Your task to perform on an android device: Is it going to rain tomorrow? Image 0: 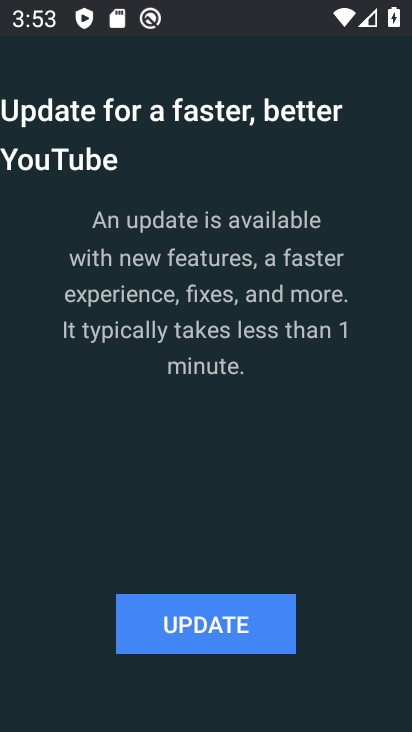
Step 0: press back button
Your task to perform on an android device: Is it going to rain tomorrow? Image 1: 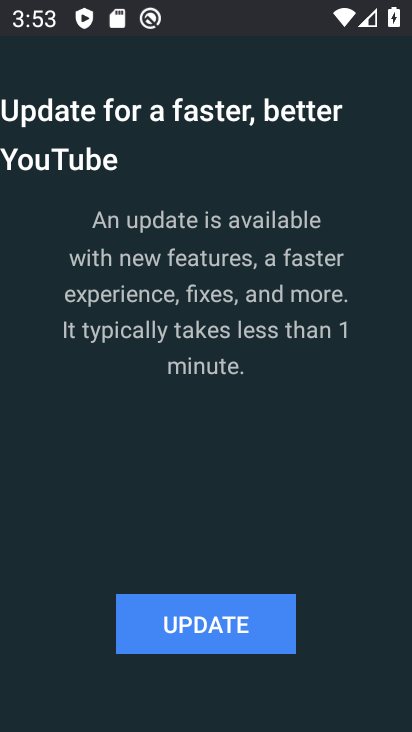
Step 1: press back button
Your task to perform on an android device: Is it going to rain tomorrow? Image 2: 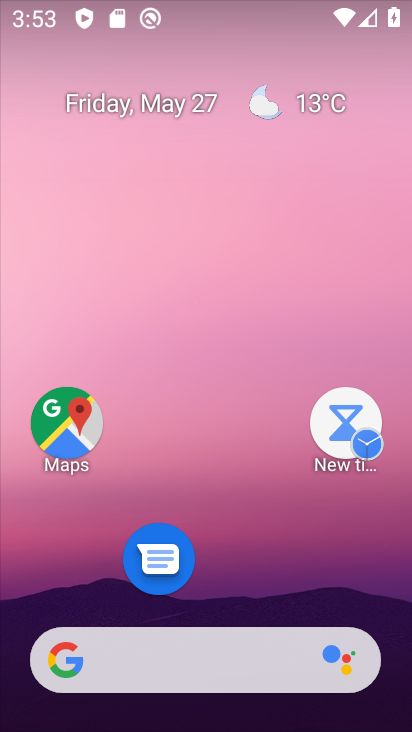
Step 2: drag from (268, 655) to (185, 82)
Your task to perform on an android device: Is it going to rain tomorrow? Image 3: 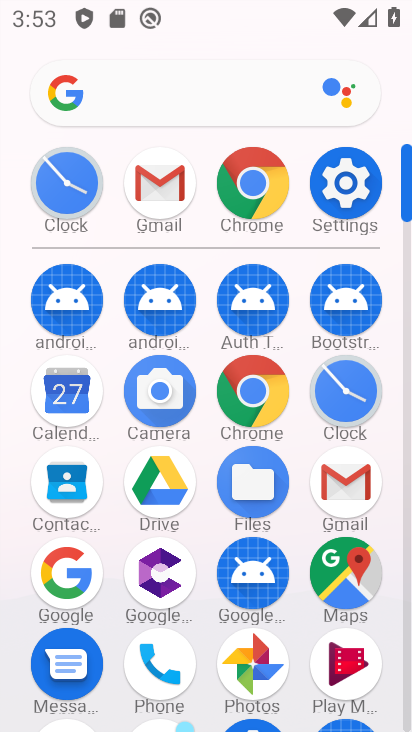
Step 3: drag from (215, 371) to (394, 230)
Your task to perform on an android device: Is it going to rain tomorrow? Image 4: 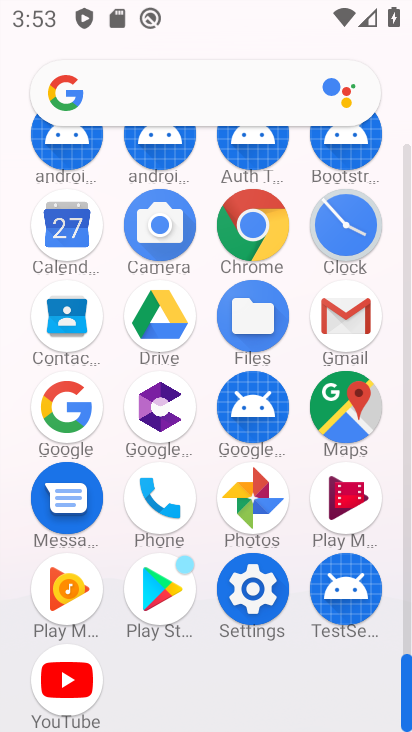
Step 4: press back button
Your task to perform on an android device: Is it going to rain tomorrow? Image 5: 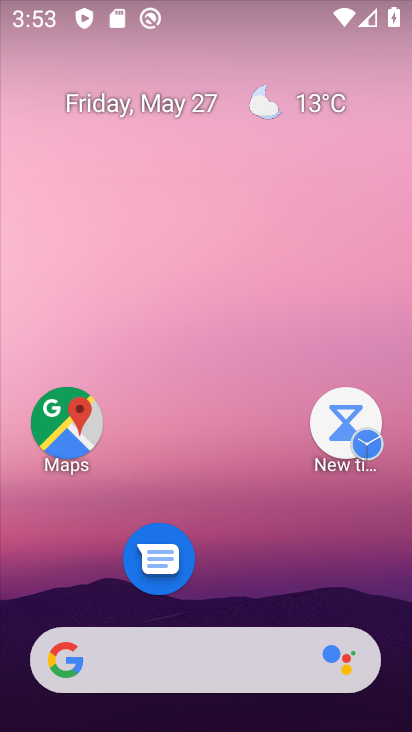
Step 5: drag from (3, 220) to (400, 426)
Your task to perform on an android device: Is it going to rain tomorrow? Image 6: 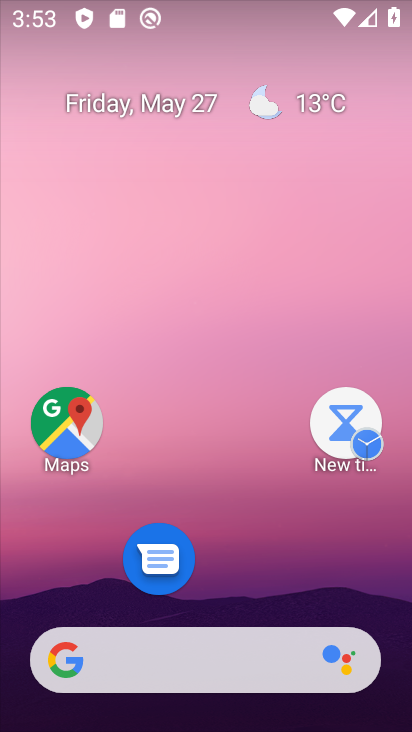
Step 6: drag from (220, 296) to (395, 422)
Your task to perform on an android device: Is it going to rain tomorrow? Image 7: 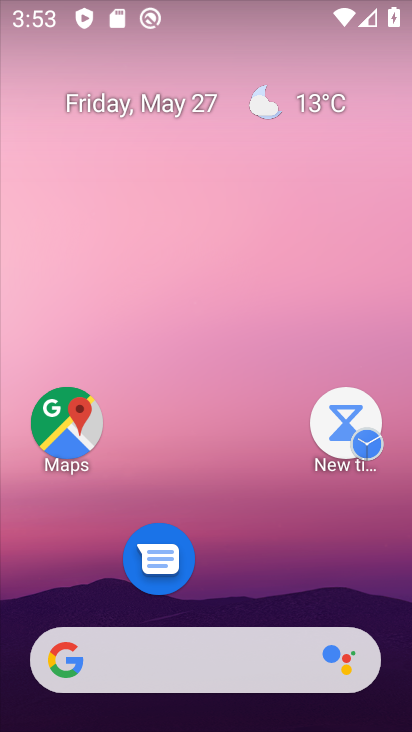
Step 7: drag from (5, 151) to (365, 564)
Your task to perform on an android device: Is it going to rain tomorrow? Image 8: 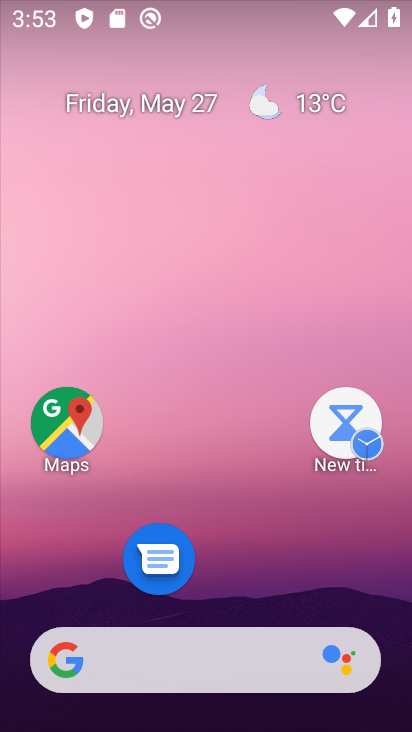
Step 8: drag from (265, 375) to (303, 425)
Your task to perform on an android device: Is it going to rain tomorrow? Image 9: 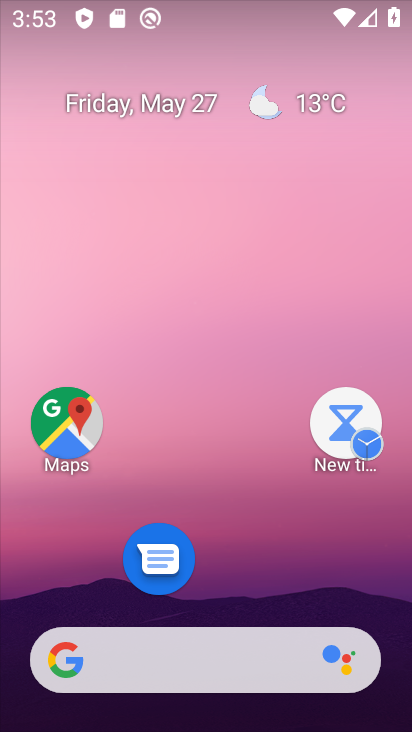
Step 9: drag from (3, 177) to (278, 551)
Your task to perform on an android device: Is it going to rain tomorrow? Image 10: 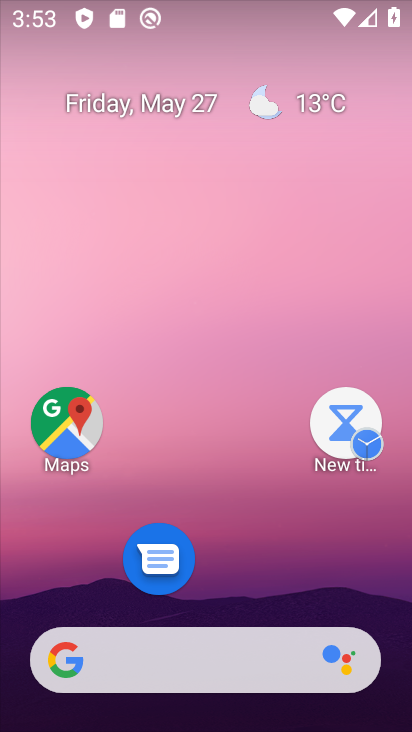
Step 10: drag from (0, 161) to (390, 472)
Your task to perform on an android device: Is it going to rain tomorrow? Image 11: 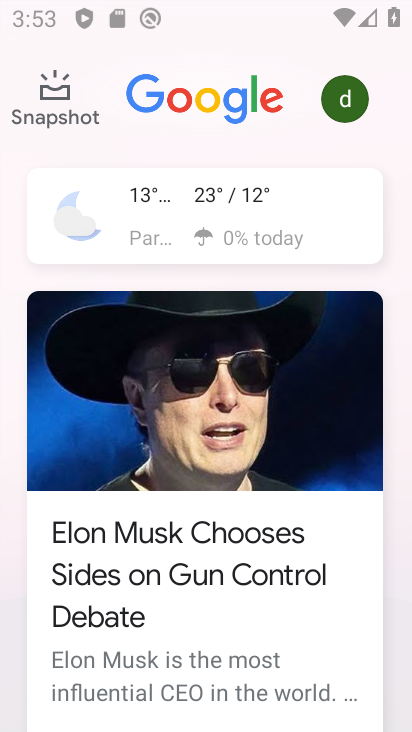
Step 11: drag from (286, 473) to (237, 512)
Your task to perform on an android device: Is it going to rain tomorrow? Image 12: 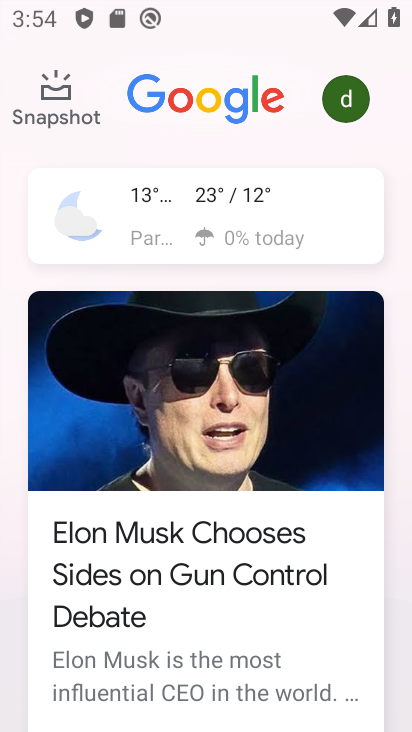
Step 12: click (194, 221)
Your task to perform on an android device: Is it going to rain tomorrow? Image 13: 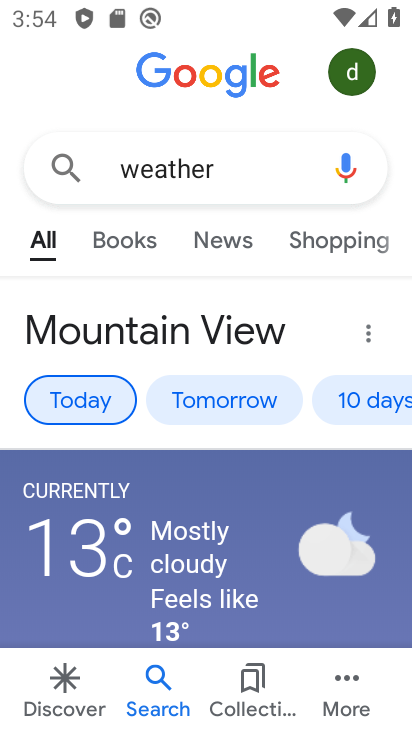
Step 13: click (208, 396)
Your task to perform on an android device: Is it going to rain tomorrow? Image 14: 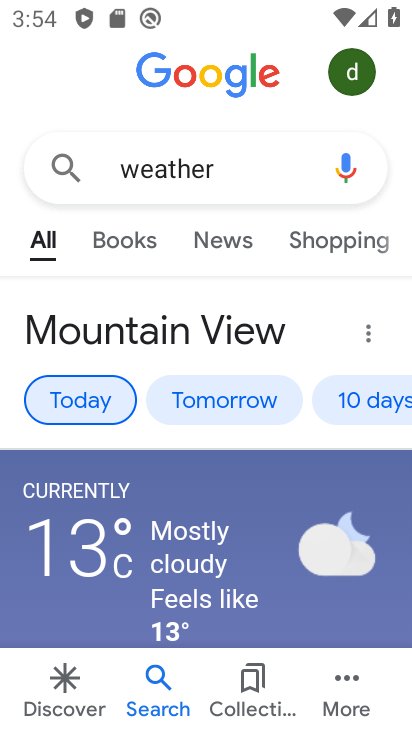
Step 14: click (211, 395)
Your task to perform on an android device: Is it going to rain tomorrow? Image 15: 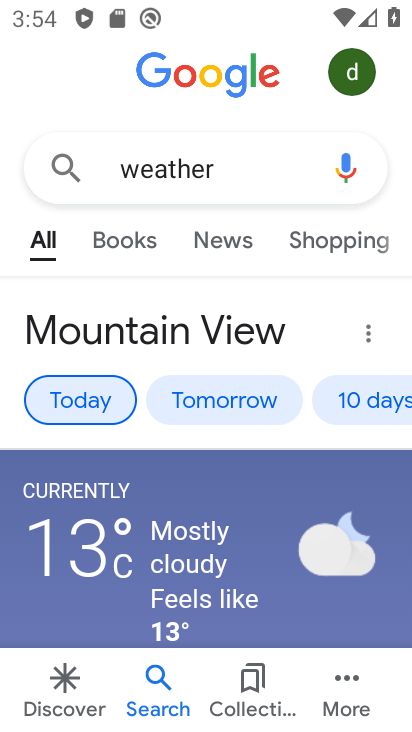
Step 15: click (215, 398)
Your task to perform on an android device: Is it going to rain tomorrow? Image 16: 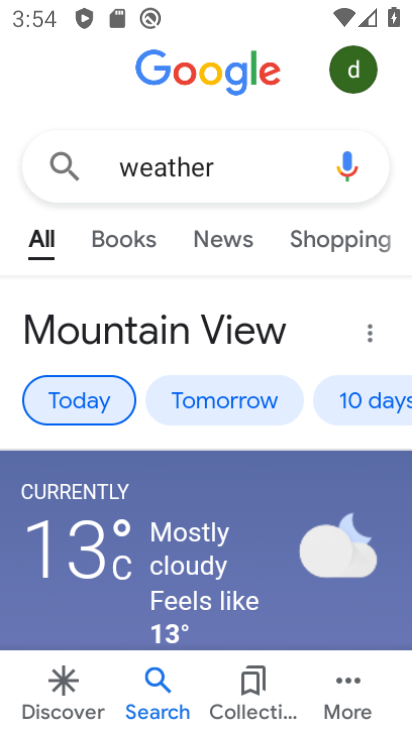
Step 16: click (215, 398)
Your task to perform on an android device: Is it going to rain tomorrow? Image 17: 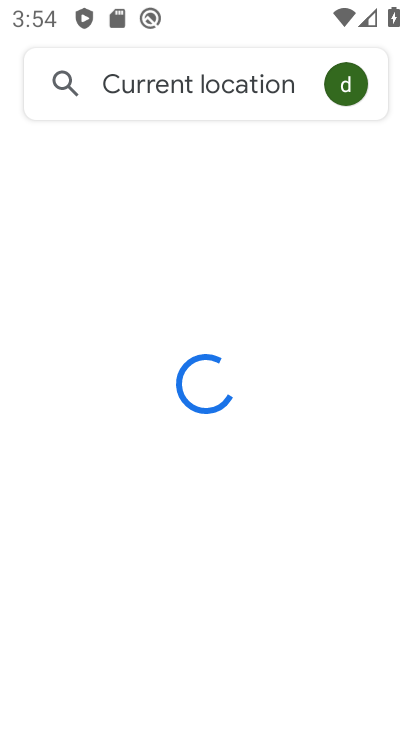
Step 17: click (215, 415)
Your task to perform on an android device: Is it going to rain tomorrow? Image 18: 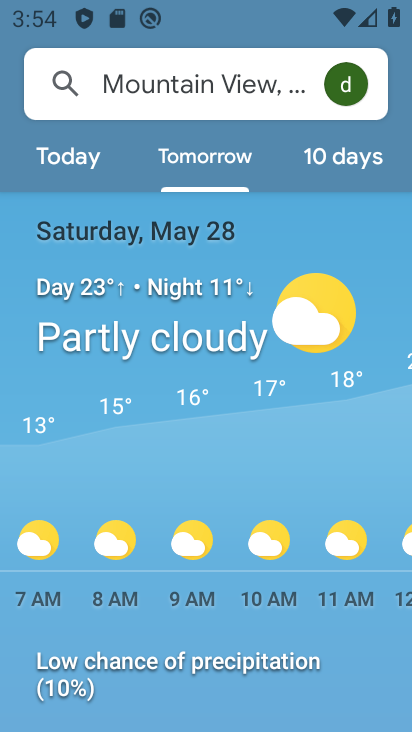
Step 18: drag from (122, 322) to (117, 219)
Your task to perform on an android device: Is it going to rain tomorrow? Image 19: 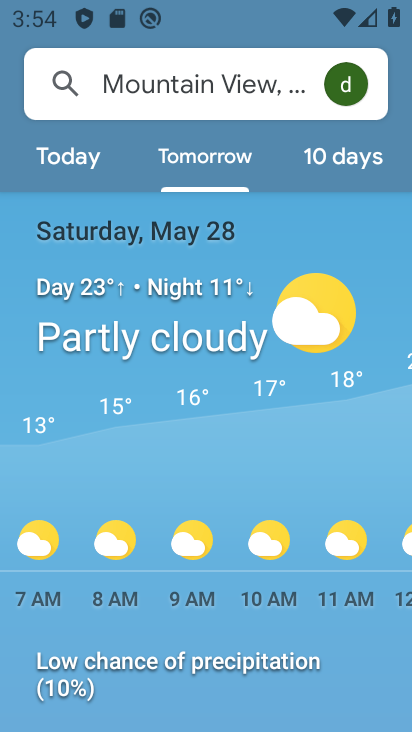
Step 19: drag from (145, 479) to (145, 307)
Your task to perform on an android device: Is it going to rain tomorrow? Image 20: 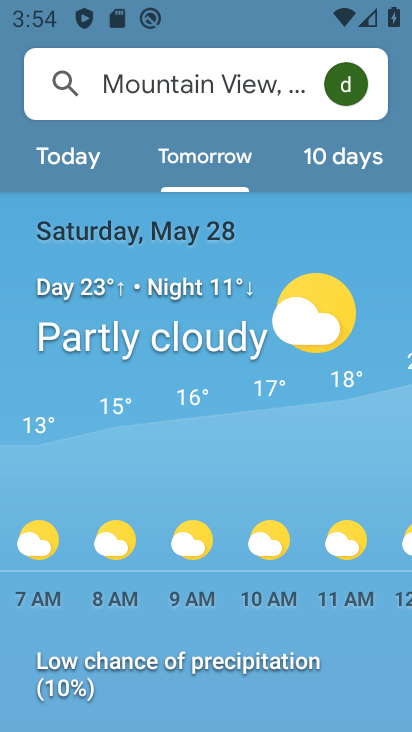
Step 20: drag from (191, 530) to (197, 183)
Your task to perform on an android device: Is it going to rain tomorrow? Image 21: 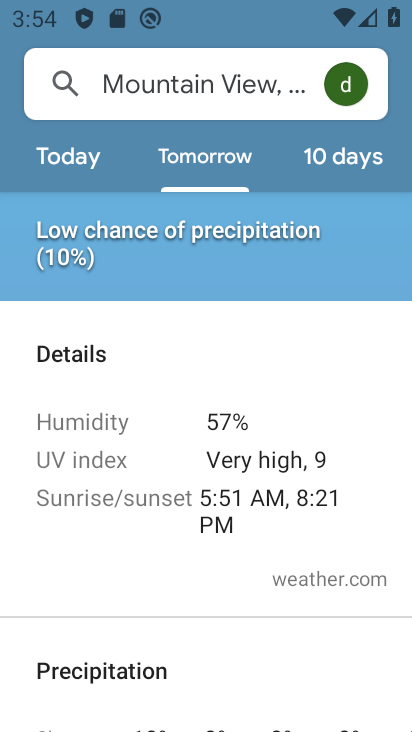
Step 21: click (291, 201)
Your task to perform on an android device: Is it going to rain tomorrow? Image 22: 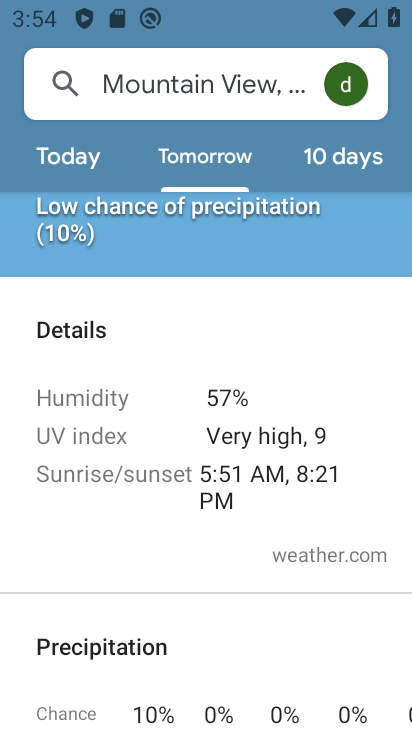
Step 22: drag from (248, 560) to (183, 130)
Your task to perform on an android device: Is it going to rain tomorrow? Image 23: 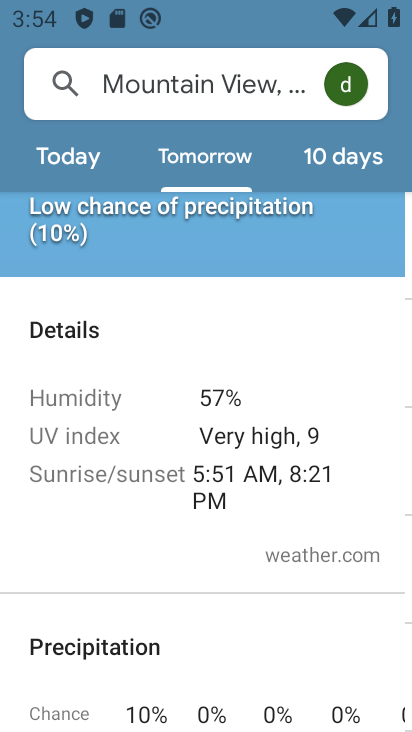
Step 23: drag from (212, 473) to (175, 220)
Your task to perform on an android device: Is it going to rain tomorrow? Image 24: 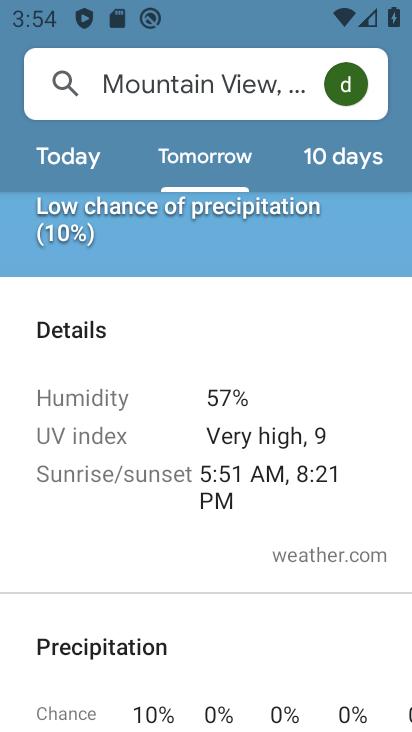
Step 24: drag from (194, 461) to (132, 110)
Your task to perform on an android device: Is it going to rain tomorrow? Image 25: 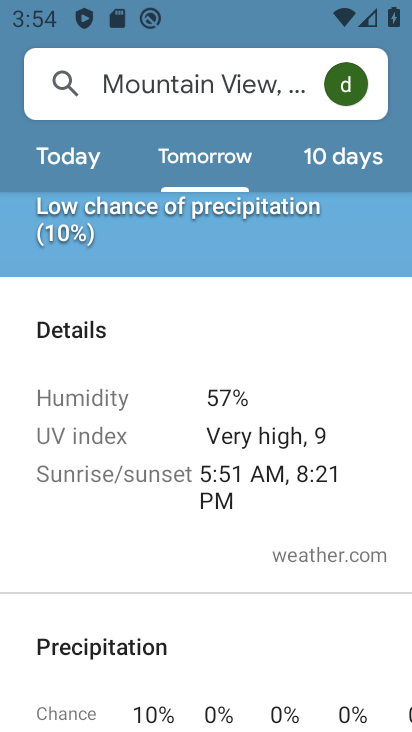
Step 25: drag from (164, 551) to (124, 179)
Your task to perform on an android device: Is it going to rain tomorrow? Image 26: 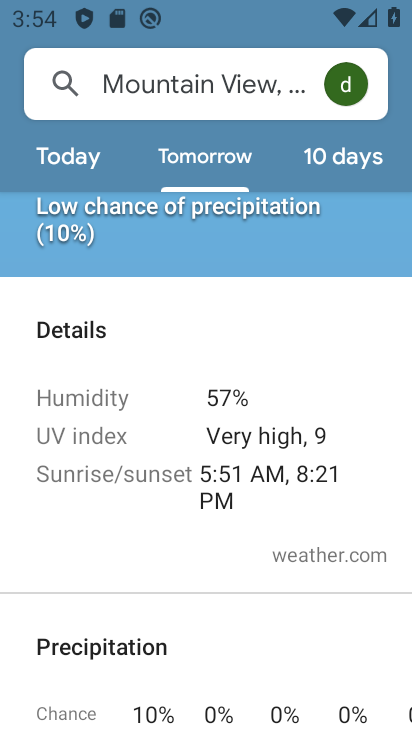
Step 26: drag from (188, 276) to (184, 202)
Your task to perform on an android device: Is it going to rain tomorrow? Image 27: 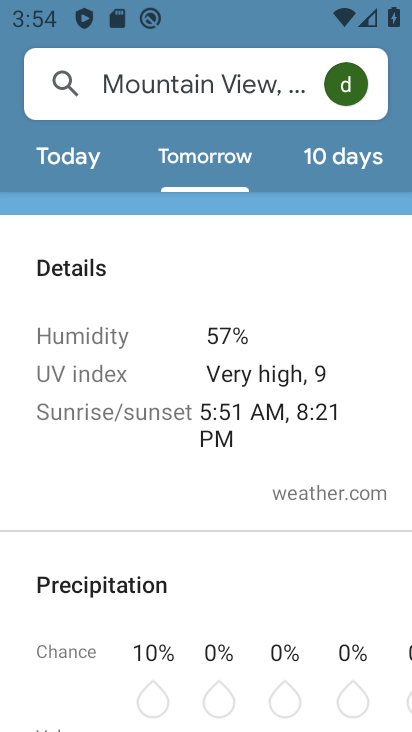
Step 27: click (266, 119)
Your task to perform on an android device: Is it going to rain tomorrow? Image 28: 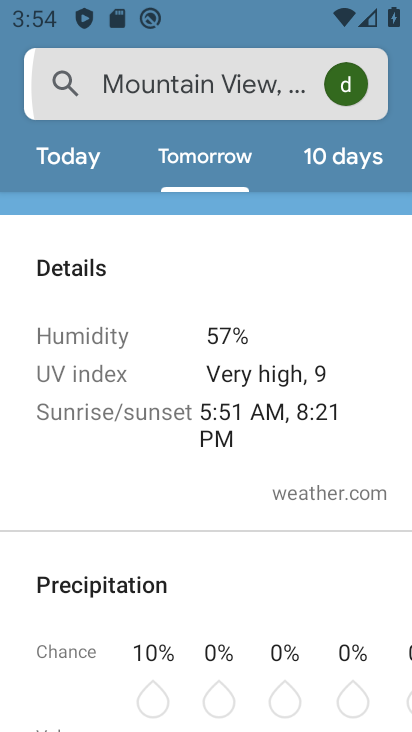
Step 28: drag from (170, 446) to (167, 241)
Your task to perform on an android device: Is it going to rain tomorrow? Image 29: 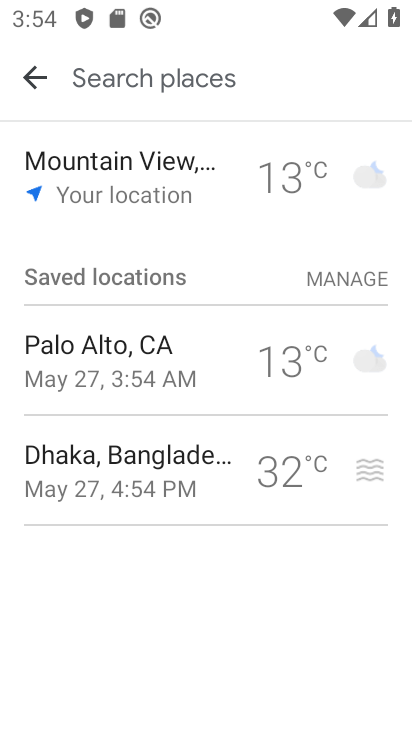
Step 29: drag from (175, 233) to (221, 718)
Your task to perform on an android device: Is it going to rain tomorrow? Image 30: 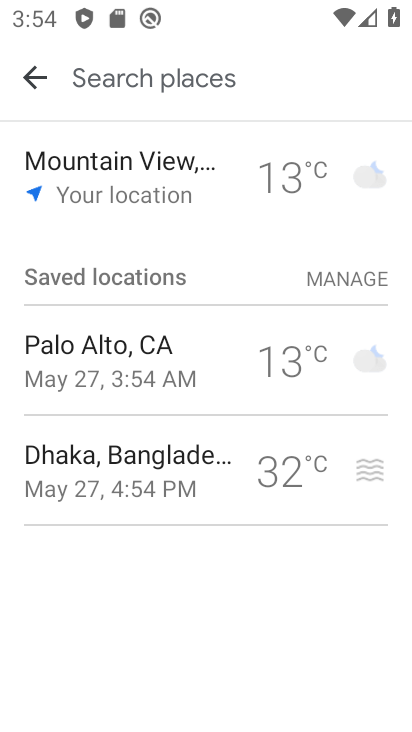
Step 30: click (211, 645)
Your task to perform on an android device: Is it going to rain tomorrow? Image 31: 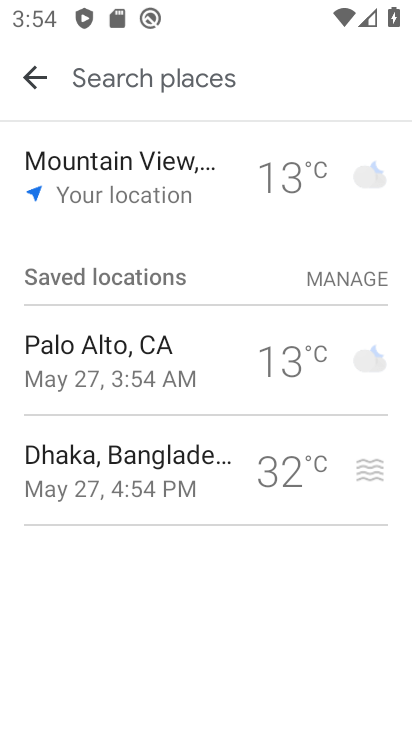
Step 31: click (28, 78)
Your task to perform on an android device: Is it going to rain tomorrow? Image 32: 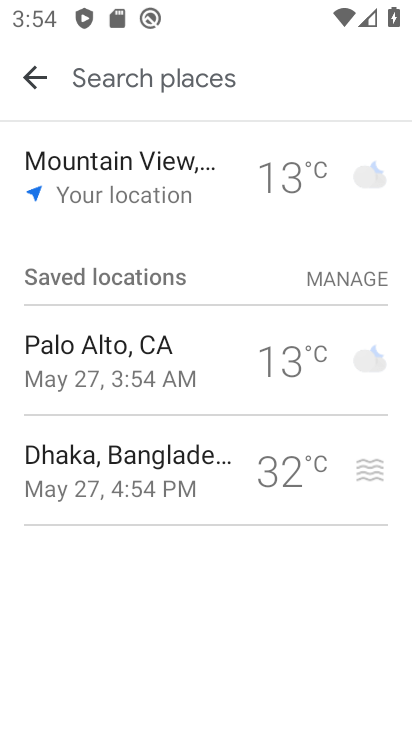
Step 32: click (28, 76)
Your task to perform on an android device: Is it going to rain tomorrow? Image 33: 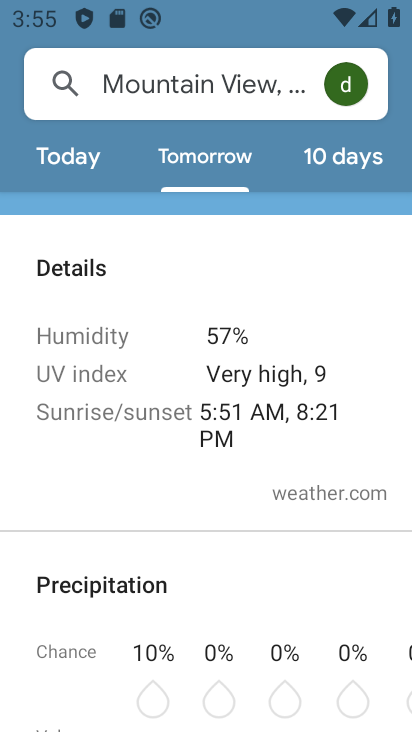
Step 33: task complete